Your task to perform on an android device: Open calendar and show me the first week of next month Image 0: 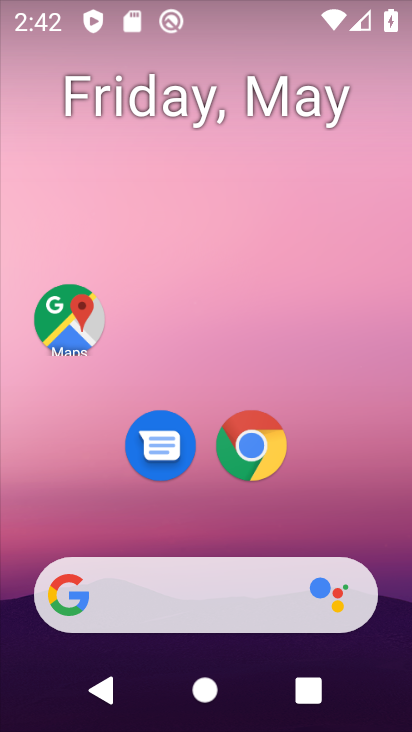
Step 0: drag from (216, 9) to (119, 0)
Your task to perform on an android device: Open calendar and show me the first week of next month Image 1: 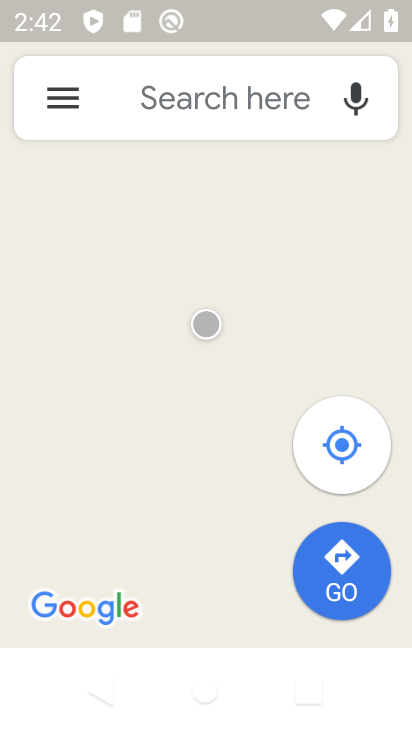
Step 1: press home button
Your task to perform on an android device: Open calendar and show me the first week of next month Image 2: 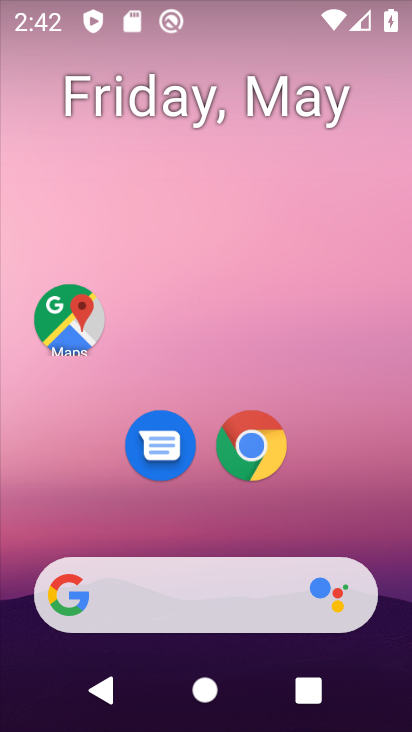
Step 2: drag from (161, 521) to (59, 8)
Your task to perform on an android device: Open calendar and show me the first week of next month Image 3: 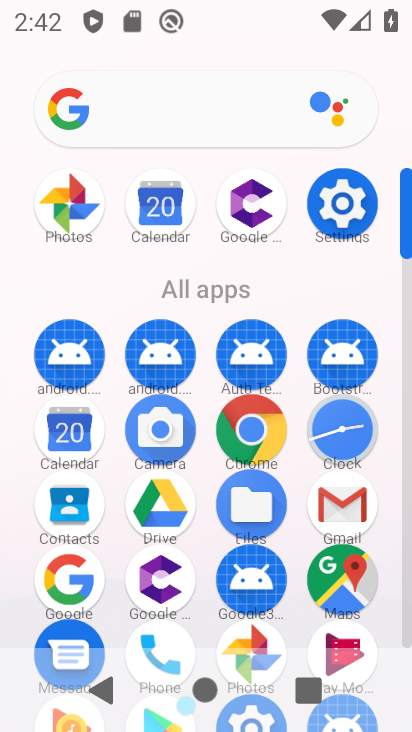
Step 3: click (58, 446)
Your task to perform on an android device: Open calendar and show me the first week of next month Image 4: 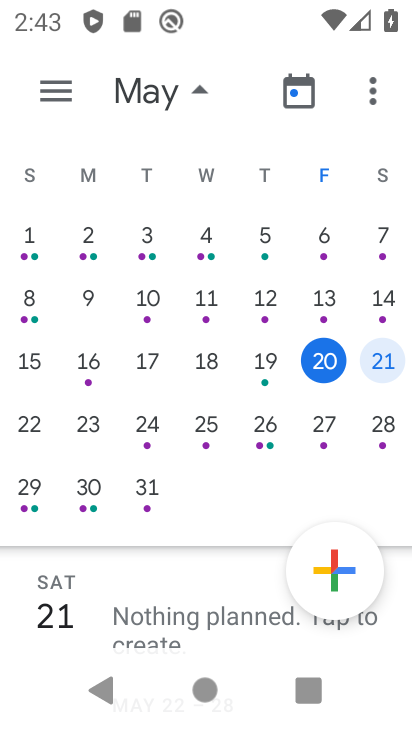
Step 4: drag from (328, 422) to (6, 372)
Your task to perform on an android device: Open calendar and show me the first week of next month Image 5: 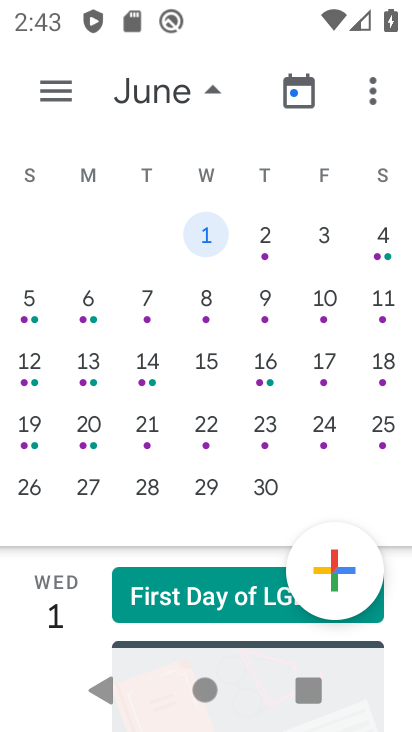
Step 5: click (212, 235)
Your task to perform on an android device: Open calendar and show me the first week of next month Image 6: 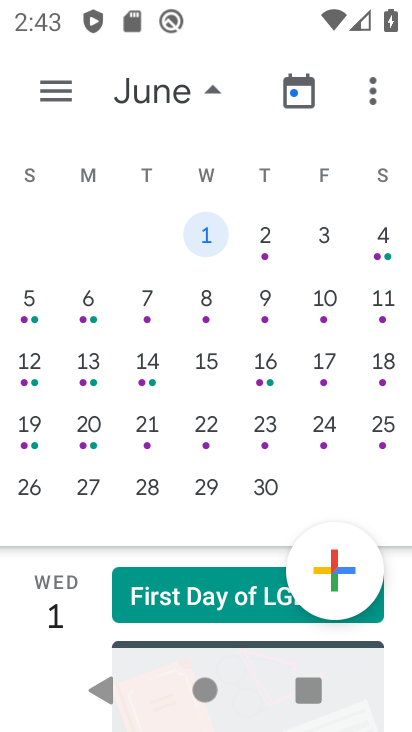
Step 6: task complete